Your task to perform on an android device: Install the Reddit app Image 0: 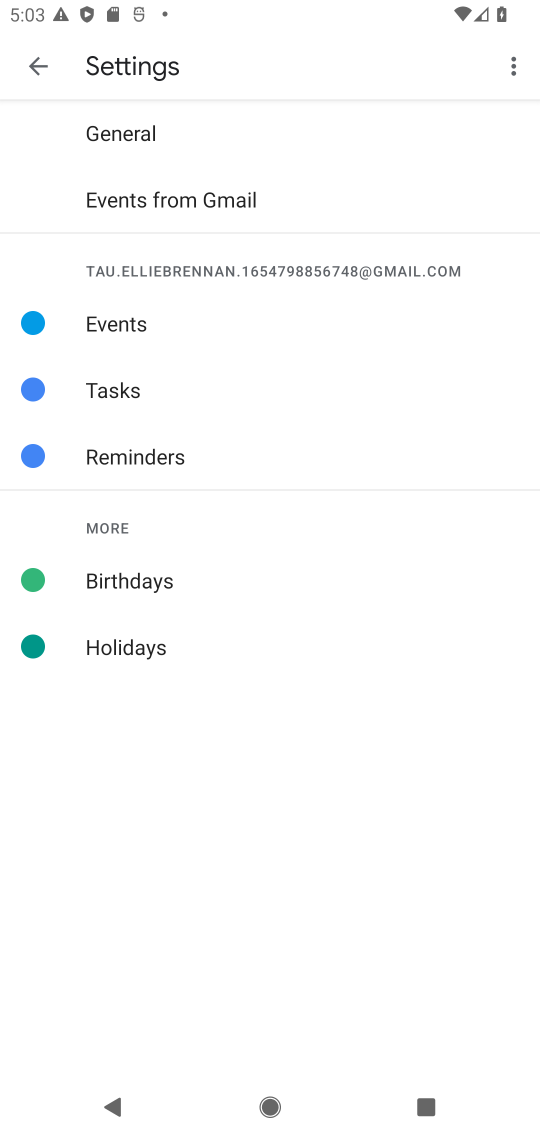
Step 0: press home button
Your task to perform on an android device: Install the Reddit app Image 1: 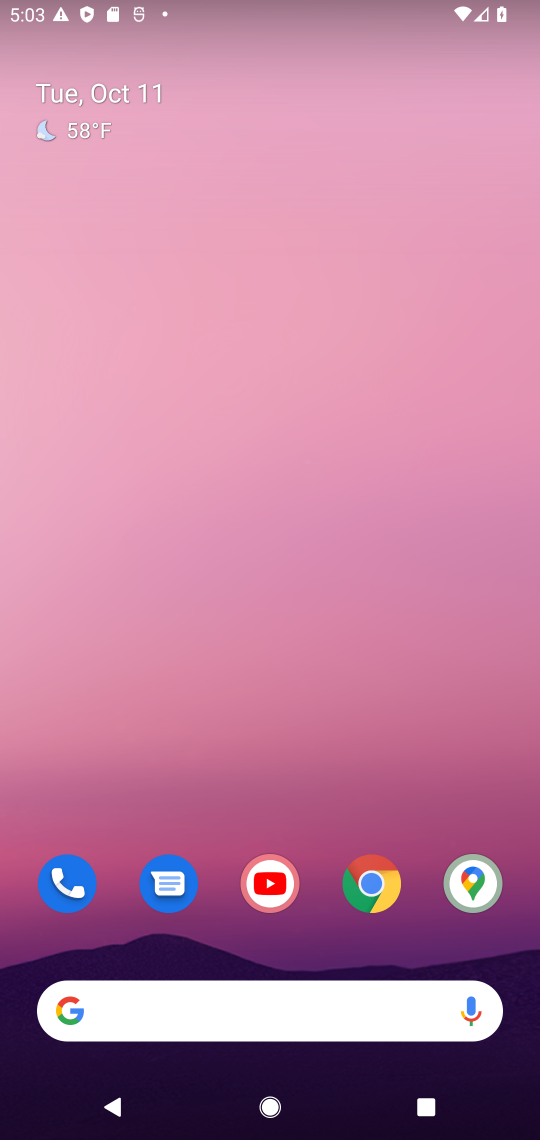
Step 1: drag from (321, 943) to (389, 19)
Your task to perform on an android device: Install the Reddit app Image 2: 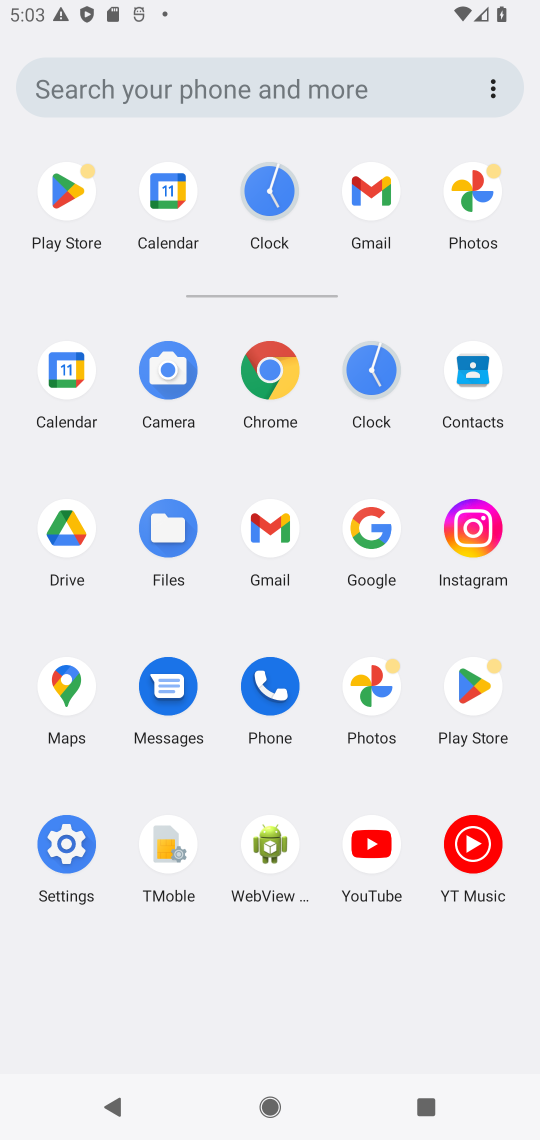
Step 2: click (465, 677)
Your task to perform on an android device: Install the Reddit app Image 3: 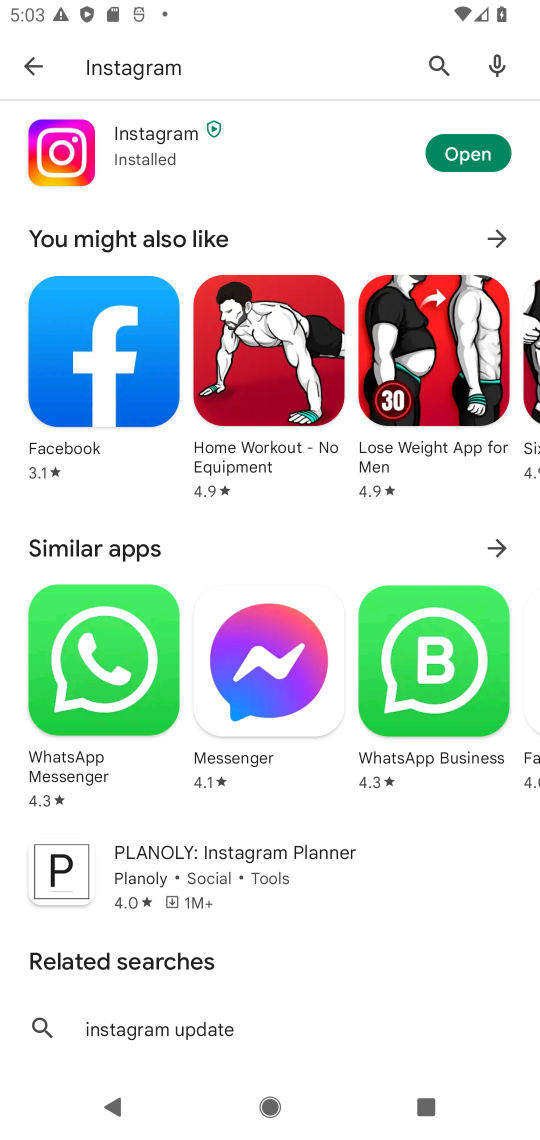
Step 3: click (223, 87)
Your task to perform on an android device: Install the Reddit app Image 4: 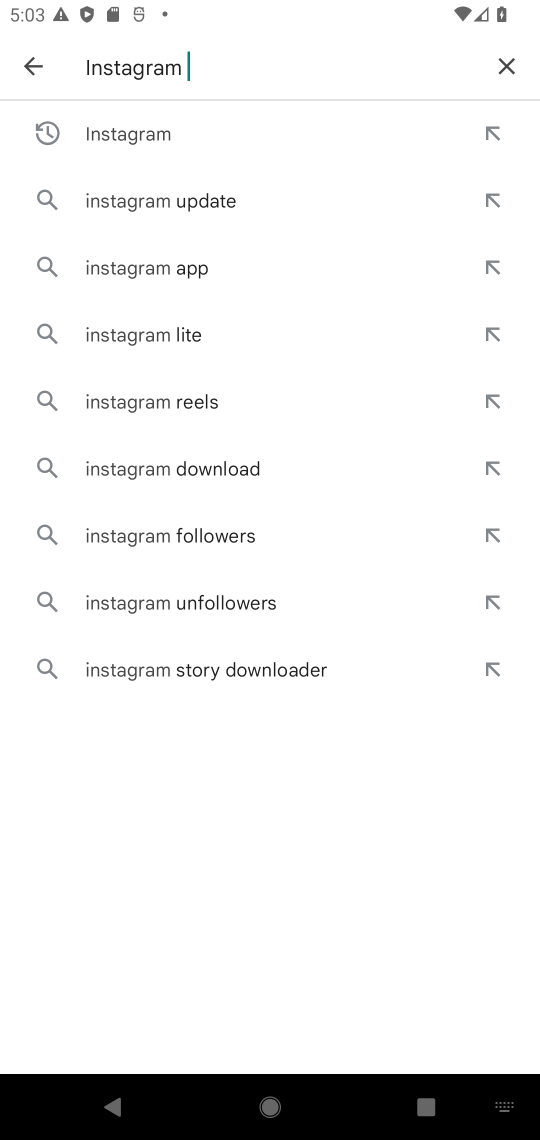
Step 4: click (513, 54)
Your task to perform on an android device: Install the Reddit app Image 5: 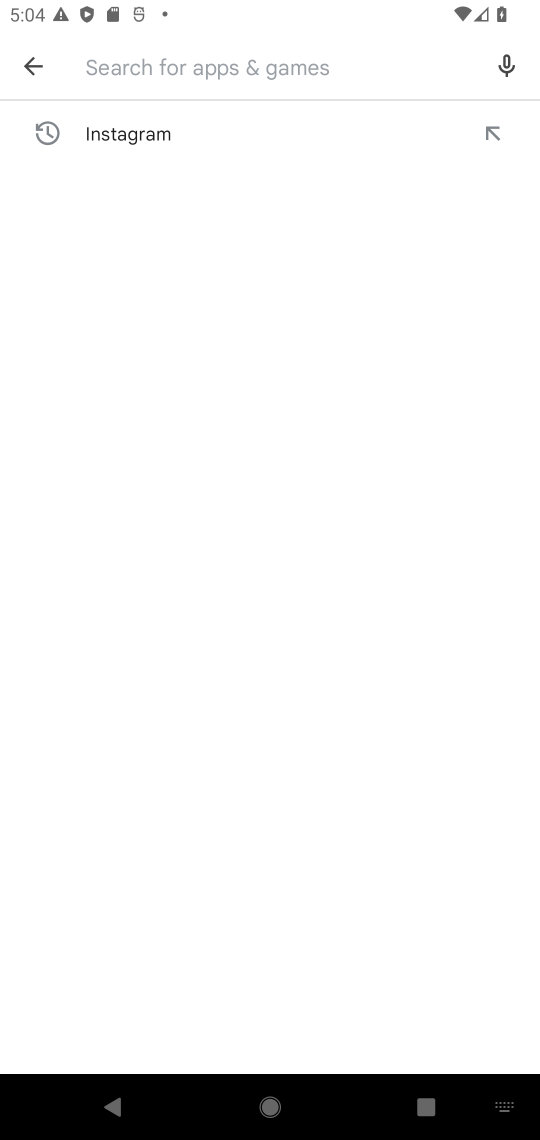
Step 5: type "reddit"
Your task to perform on an android device: Install the Reddit app Image 6: 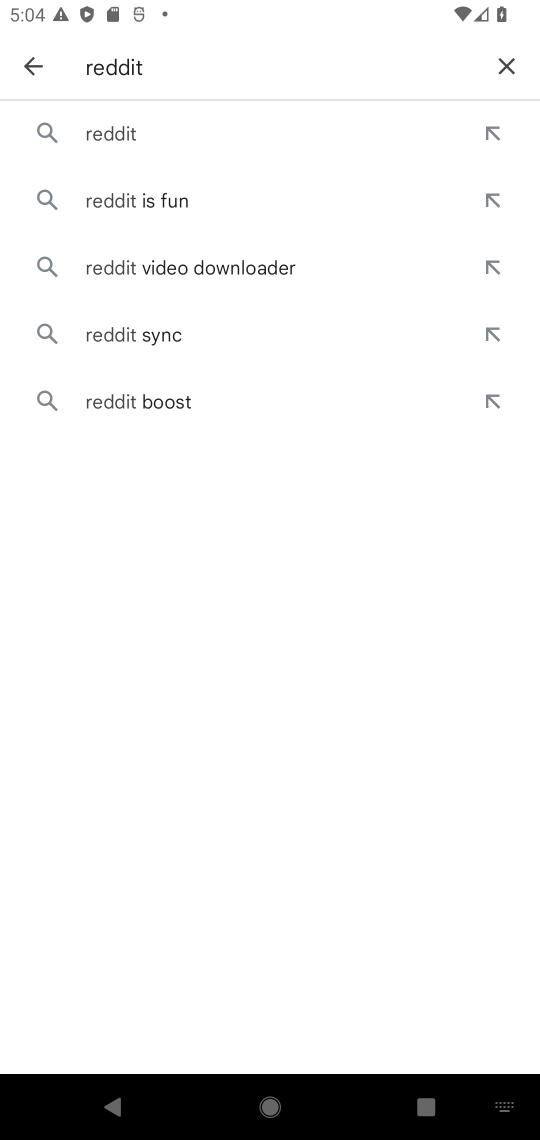
Step 6: press enter
Your task to perform on an android device: Install the Reddit app Image 7: 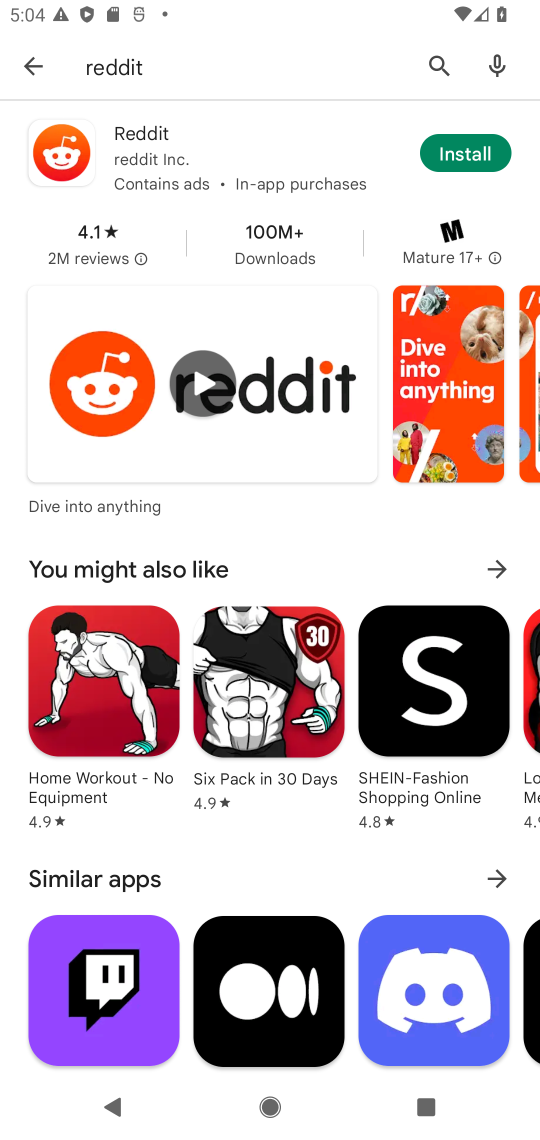
Step 7: click (481, 142)
Your task to perform on an android device: Install the Reddit app Image 8: 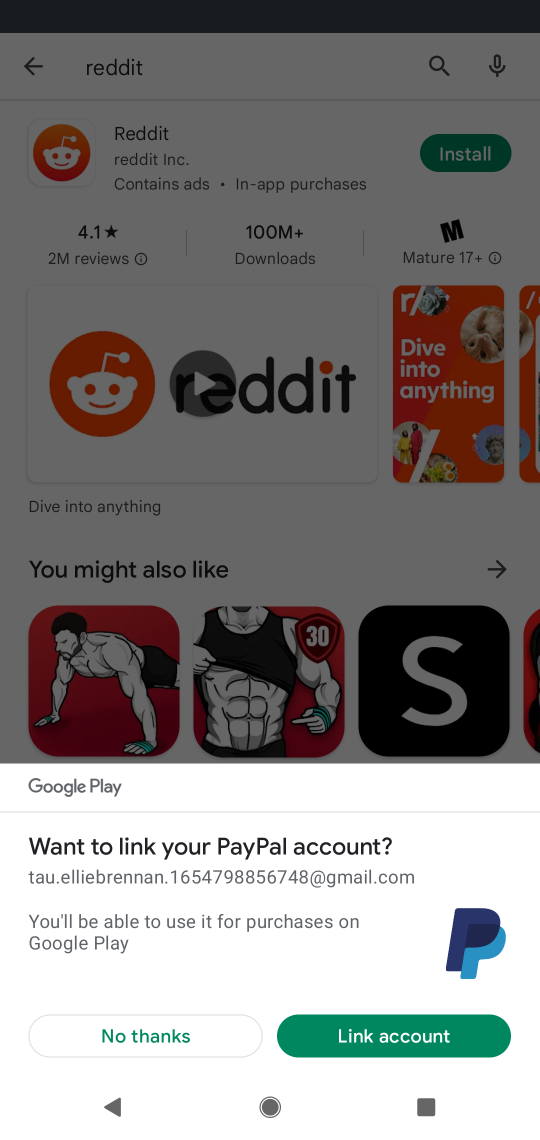
Step 8: click (170, 1019)
Your task to perform on an android device: Install the Reddit app Image 9: 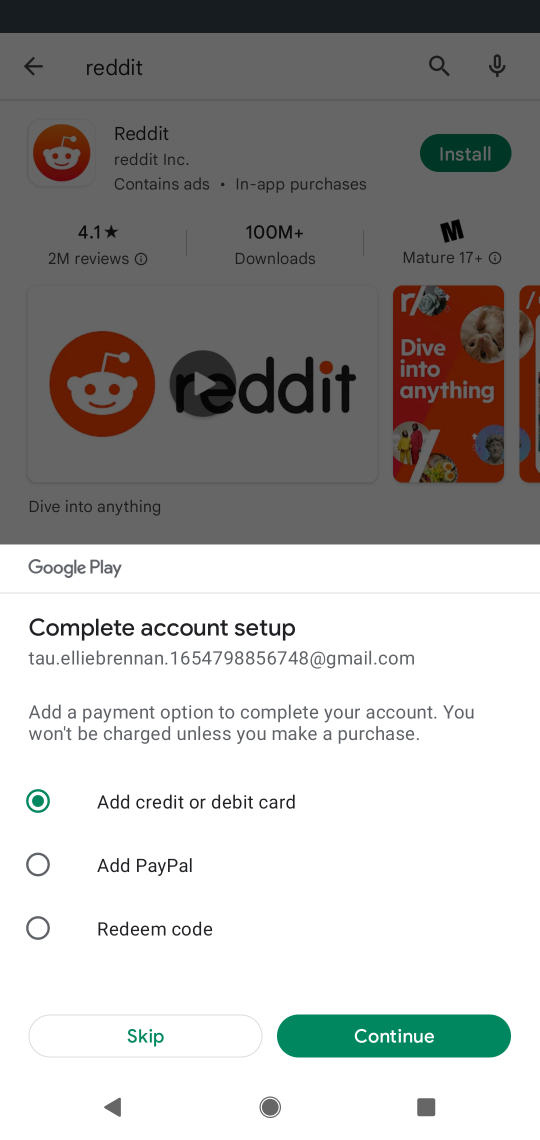
Step 9: click (175, 1028)
Your task to perform on an android device: Install the Reddit app Image 10: 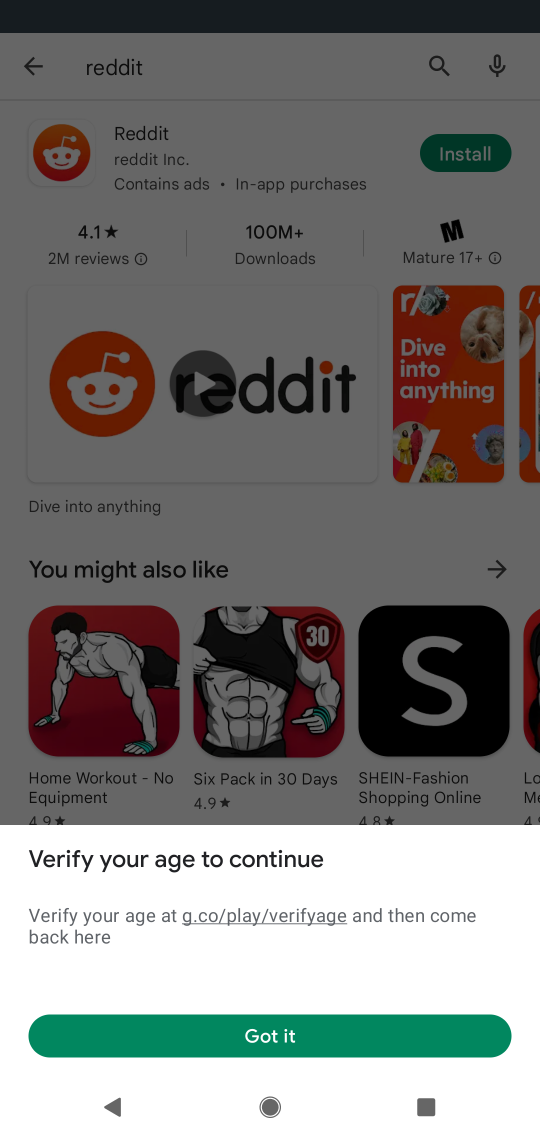
Step 10: click (349, 1019)
Your task to perform on an android device: Install the Reddit app Image 11: 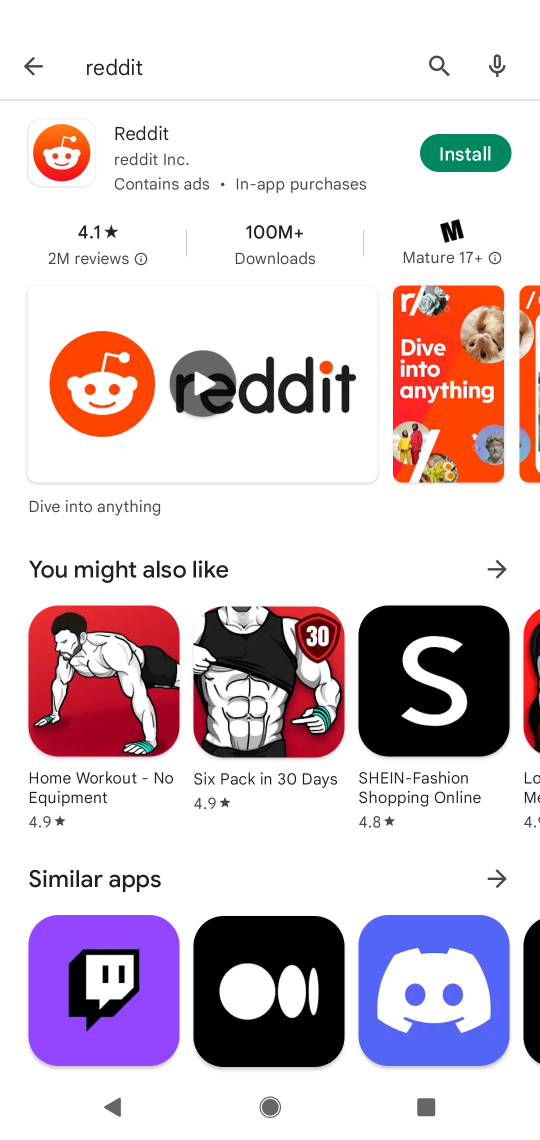
Step 11: click (448, 161)
Your task to perform on an android device: Install the Reddit app Image 12: 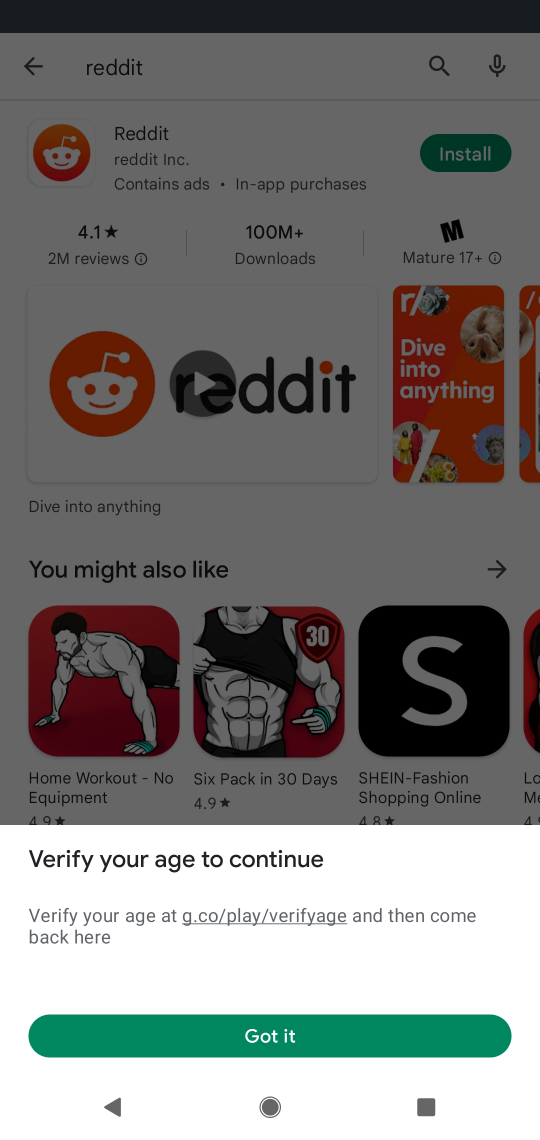
Step 12: click (309, 1037)
Your task to perform on an android device: Install the Reddit app Image 13: 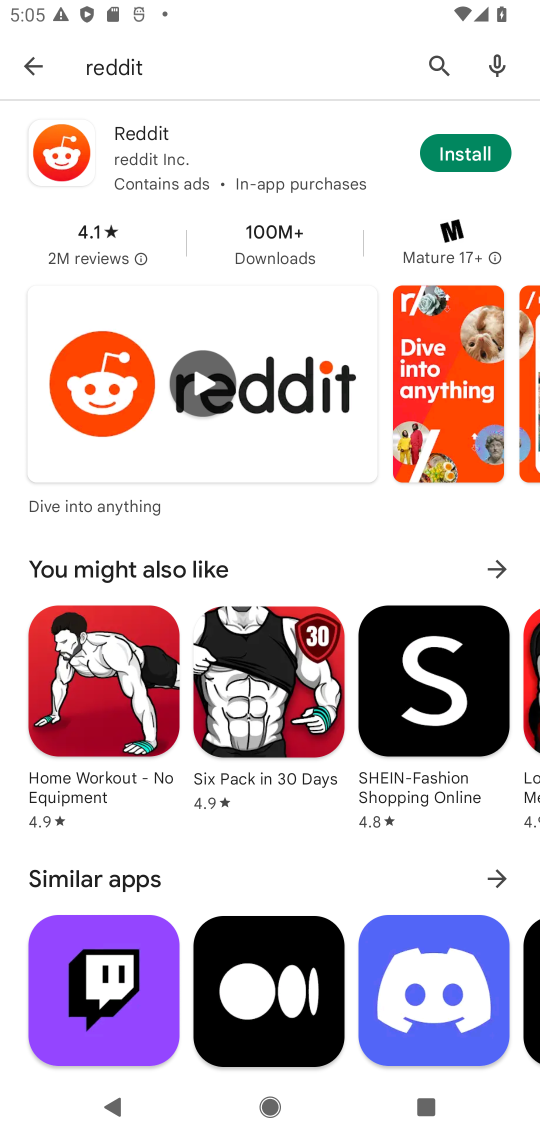
Step 13: click (476, 157)
Your task to perform on an android device: Install the Reddit app Image 14: 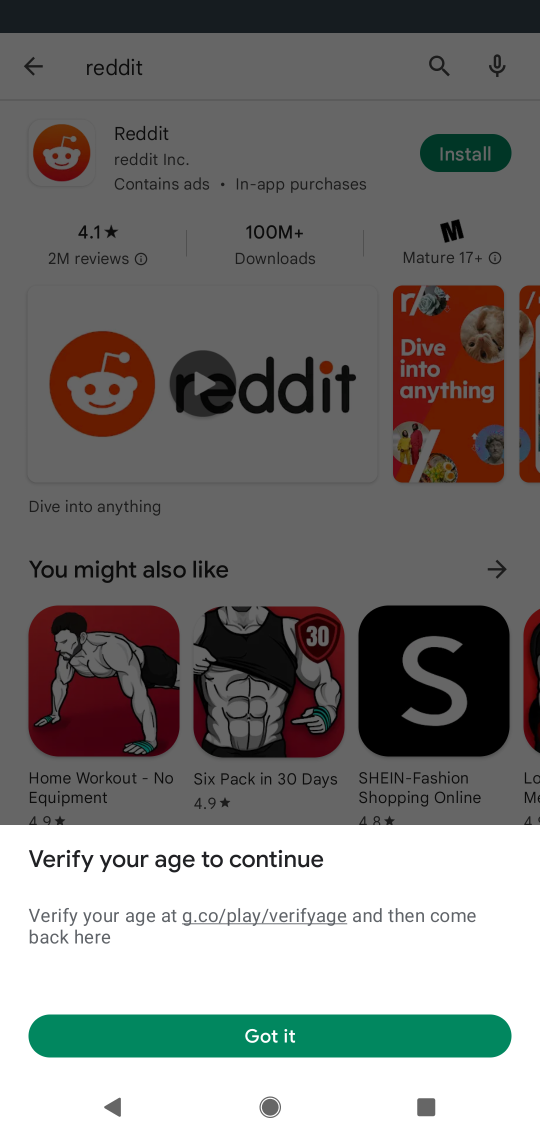
Step 14: click (289, 907)
Your task to perform on an android device: Install the Reddit app Image 15: 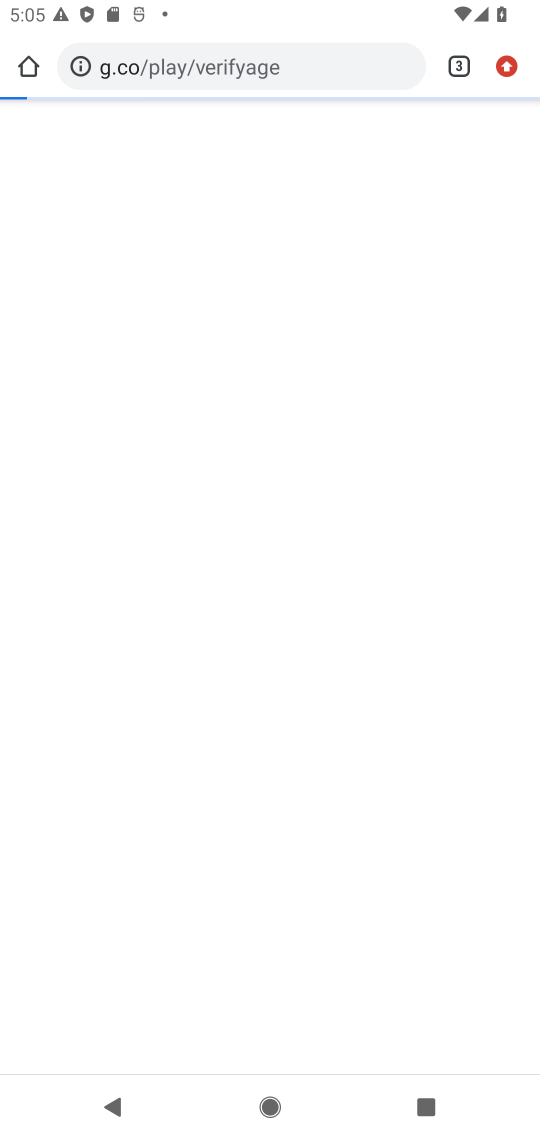
Step 15: click (288, 900)
Your task to perform on an android device: Install the Reddit app Image 16: 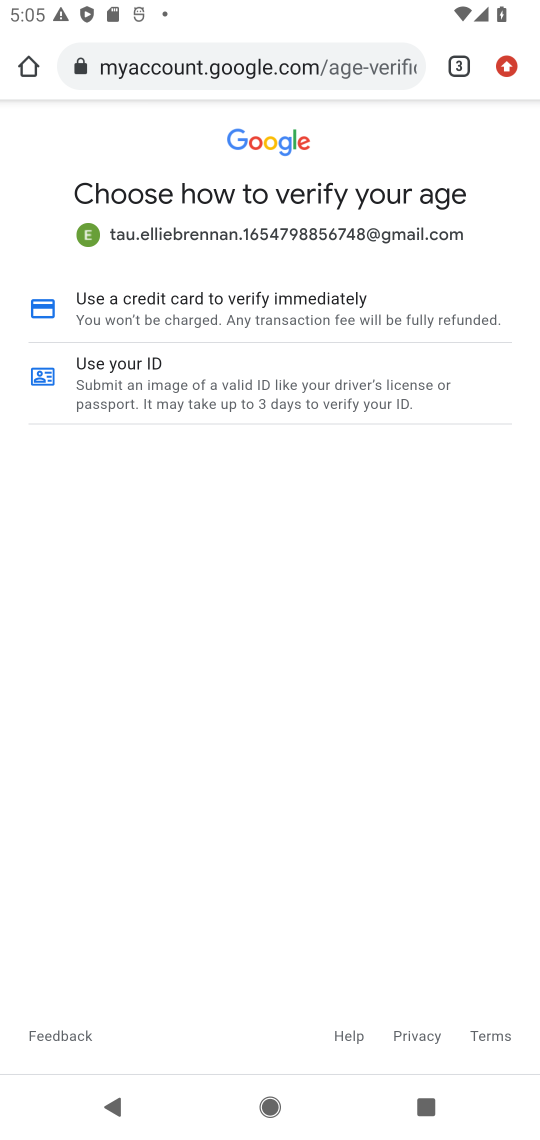
Step 16: task complete